Your task to perform on an android device: check out phone information Image 0: 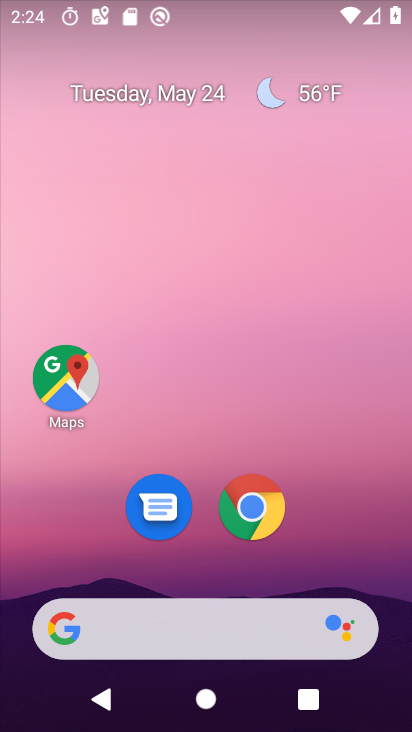
Step 0: press home button
Your task to perform on an android device: check out phone information Image 1: 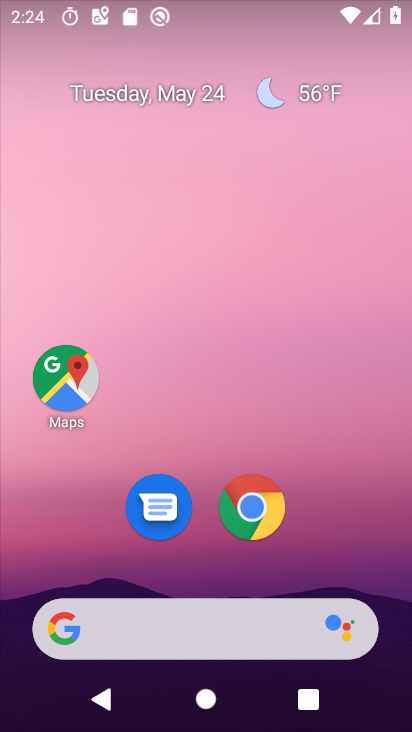
Step 1: drag from (212, 569) to (255, 77)
Your task to perform on an android device: check out phone information Image 2: 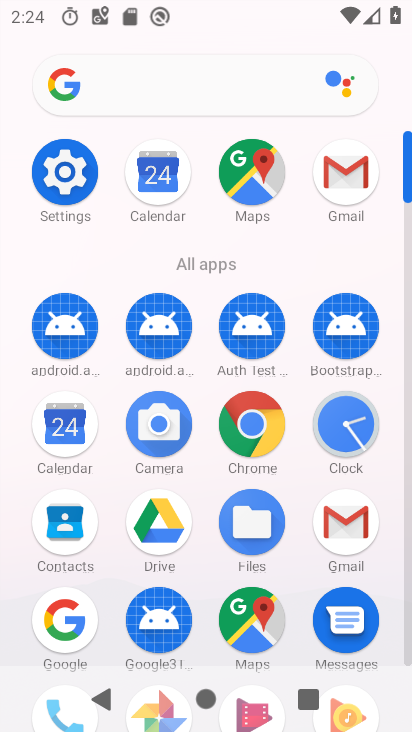
Step 2: click (66, 167)
Your task to perform on an android device: check out phone information Image 3: 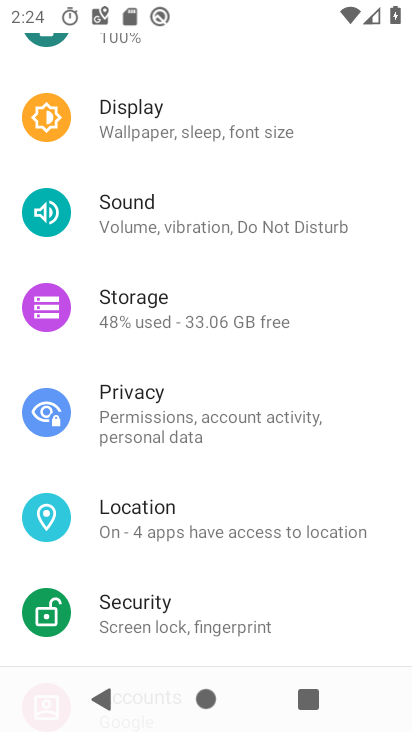
Step 3: drag from (194, 647) to (191, 62)
Your task to perform on an android device: check out phone information Image 4: 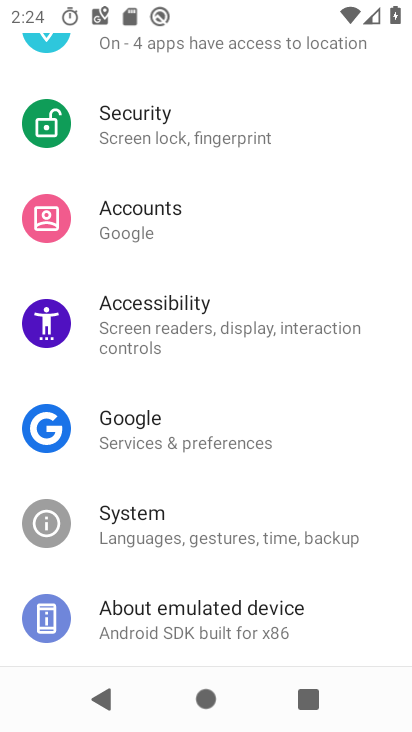
Step 4: click (298, 624)
Your task to perform on an android device: check out phone information Image 5: 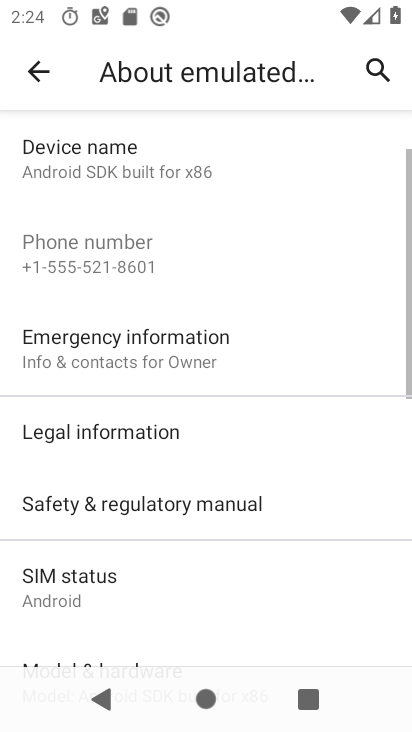
Step 5: task complete